Your task to perform on an android device: Go to Amazon Image 0: 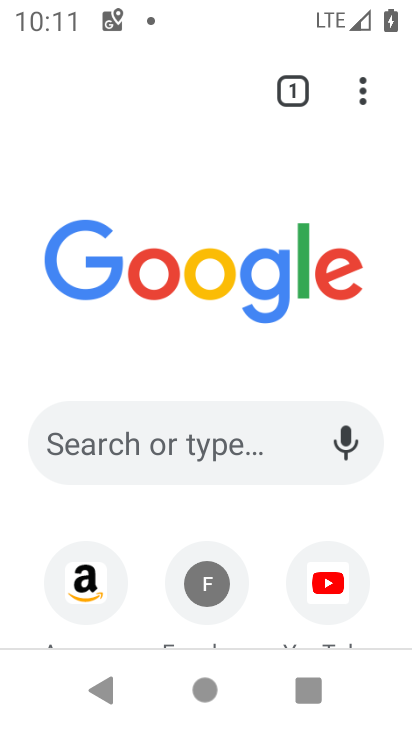
Step 0: click (94, 578)
Your task to perform on an android device: Go to Amazon Image 1: 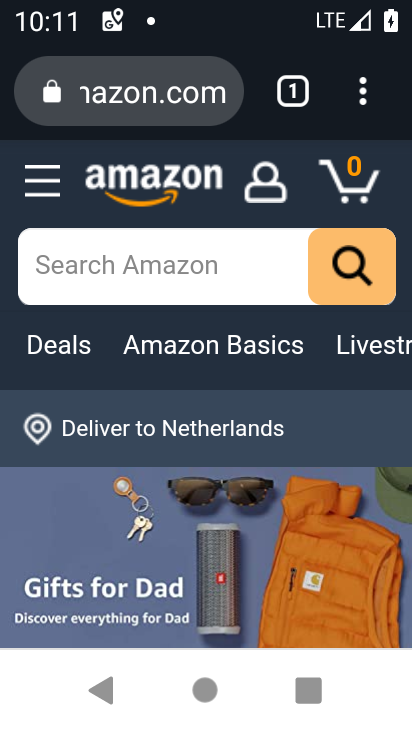
Step 1: task complete